Your task to perform on an android device: Set the phone to "Do not disturb". Image 0: 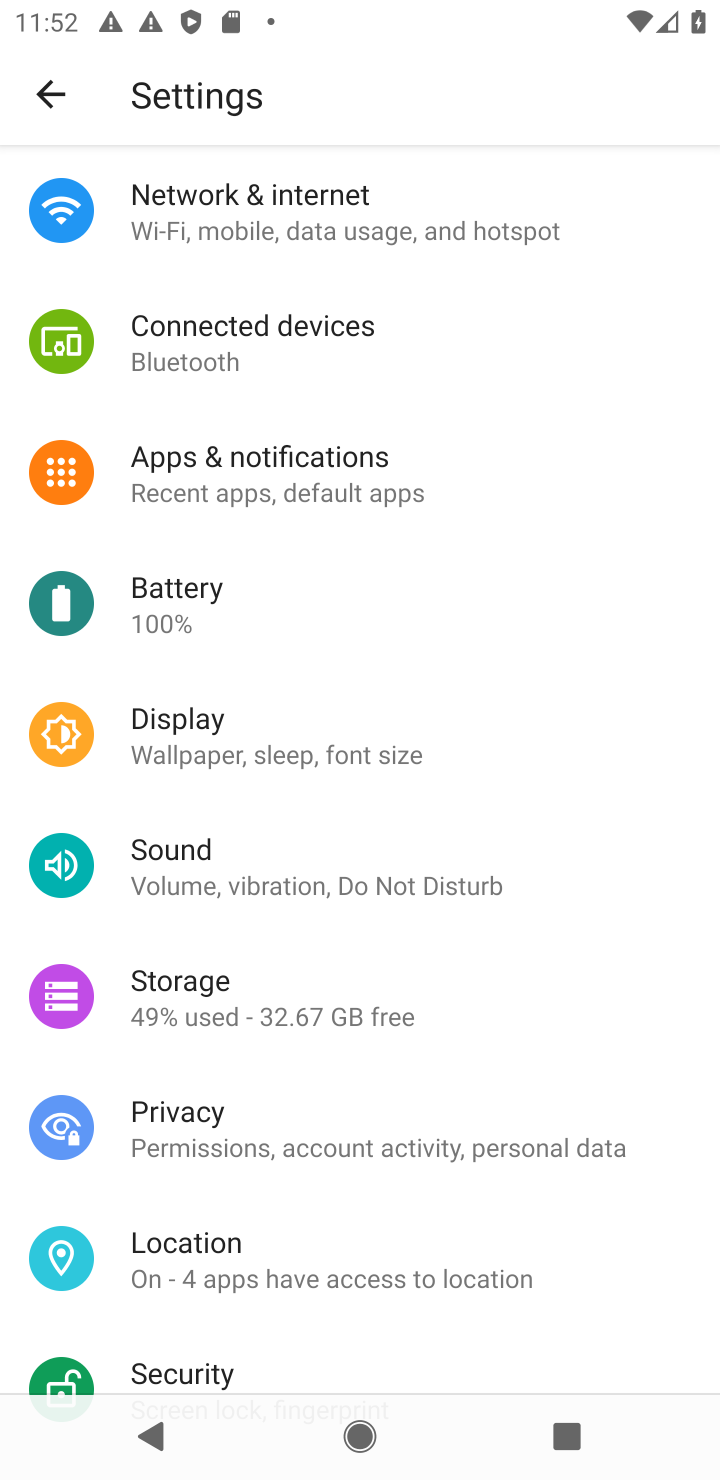
Step 0: task complete